Your task to perform on an android device: Open Maps and search for coffee Image 0: 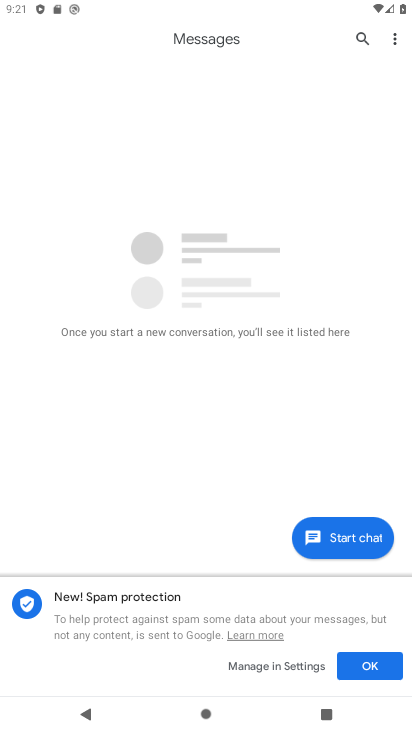
Step 0: press home button
Your task to perform on an android device: Open Maps and search for coffee Image 1: 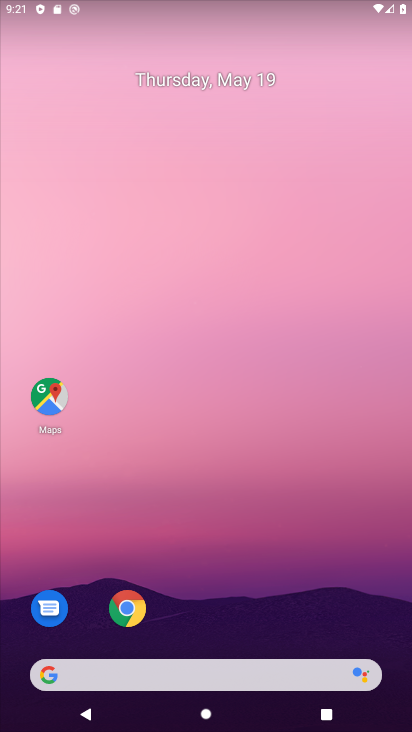
Step 1: click (54, 396)
Your task to perform on an android device: Open Maps and search for coffee Image 2: 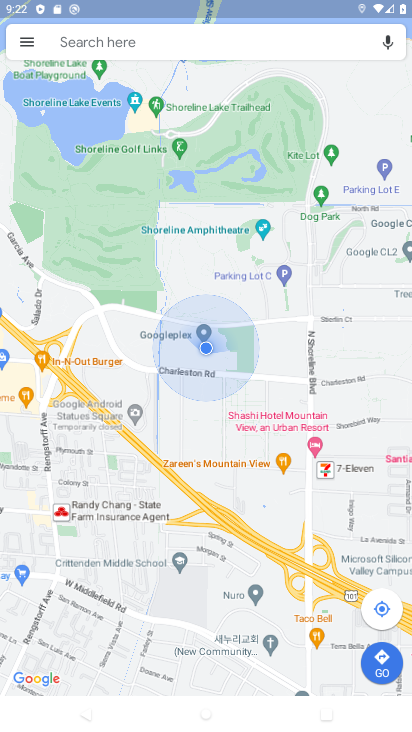
Step 2: click (116, 57)
Your task to perform on an android device: Open Maps and search for coffee Image 3: 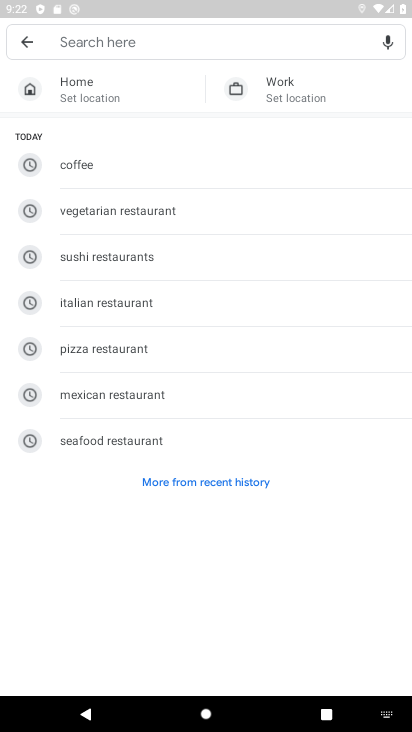
Step 3: type "coffee"
Your task to perform on an android device: Open Maps and search for coffee Image 4: 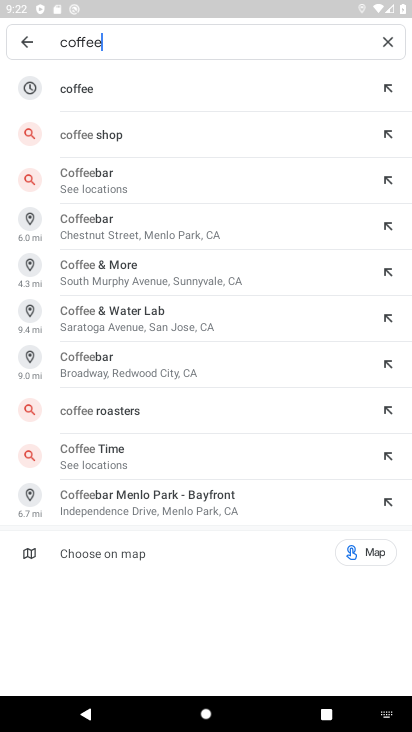
Step 4: click (108, 96)
Your task to perform on an android device: Open Maps and search for coffee Image 5: 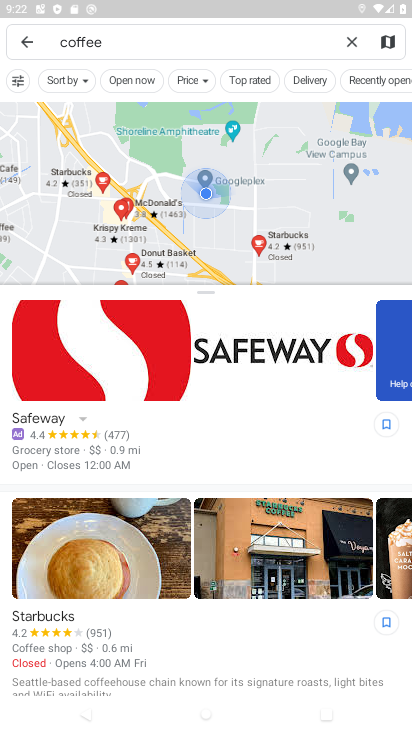
Step 5: task complete